Your task to perform on an android device: Open calendar and show me the third week of next month Image 0: 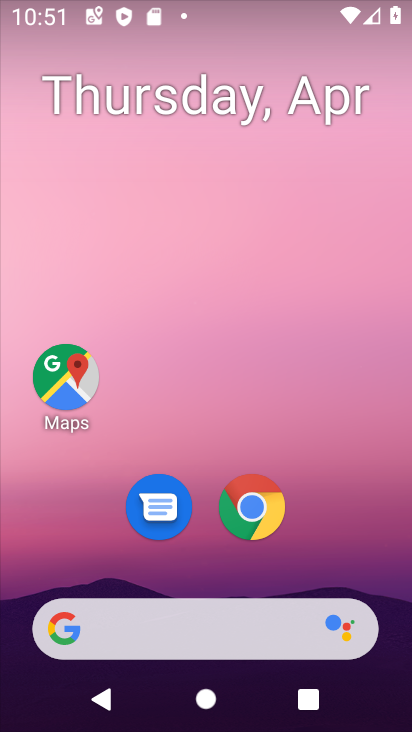
Step 0: drag from (128, 584) to (288, 8)
Your task to perform on an android device: Open calendar and show me the third week of next month Image 1: 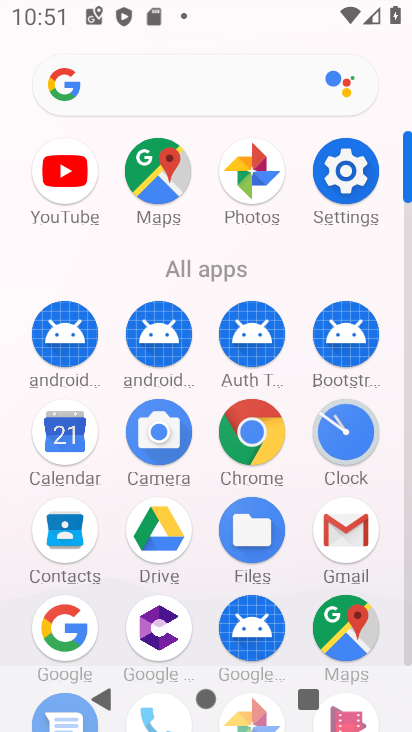
Step 1: click (71, 467)
Your task to perform on an android device: Open calendar and show me the third week of next month Image 2: 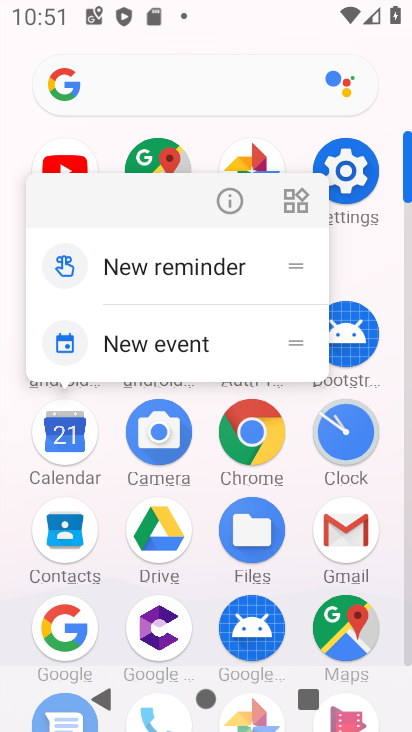
Step 2: click (75, 433)
Your task to perform on an android device: Open calendar and show me the third week of next month Image 3: 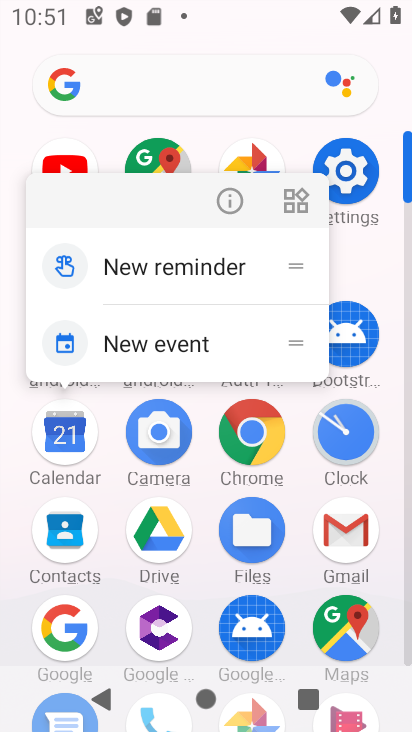
Step 3: click (71, 420)
Your task to perform on an android device: Open calendar and show me the third week of next month Image 4: 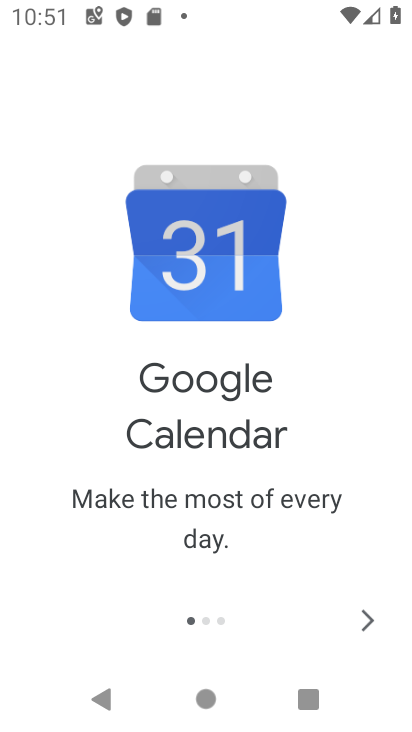
Step 4: click (369, 620)
Your task to perform on an android device: Open calendar and show me the third week of next month Image 5: 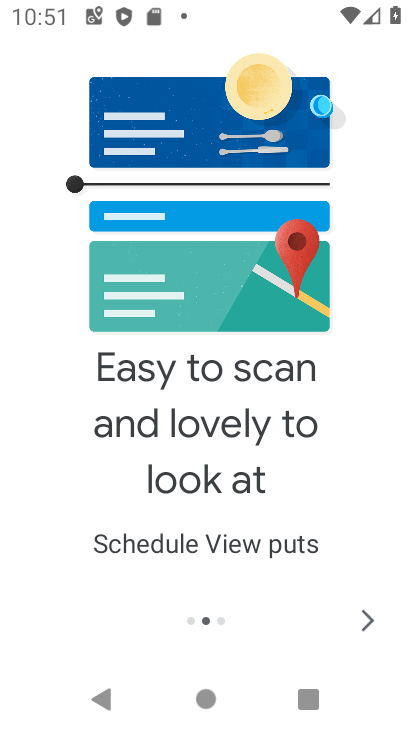
Step 5: click (361, 624)
Your task to perform on an android device: Open calendar and show me the third week of next month Image 6: 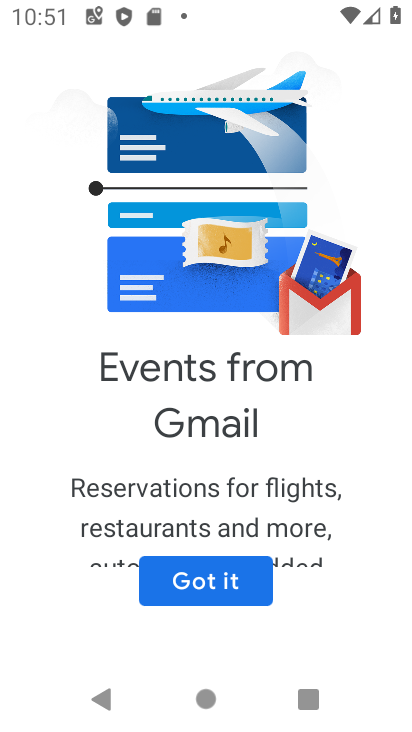
Step 6: click (202, 585)
Your task to perform on an android device: Open calendar and show me the third week of next month Image 7: 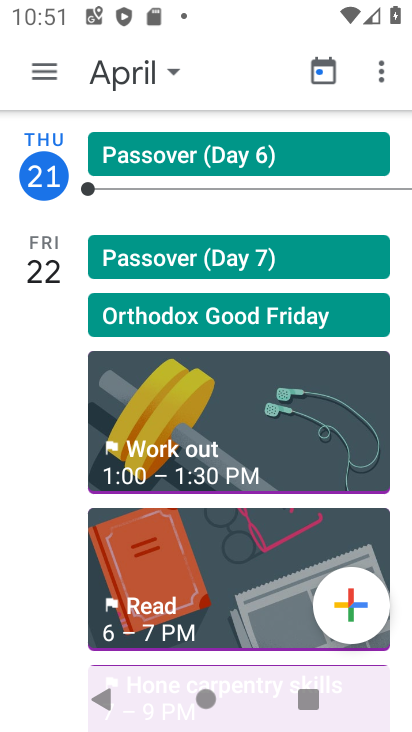
Step 7: click (124, 85)
Your task to perform on an android device: Open calendar and show me the third week of next month Image 8: 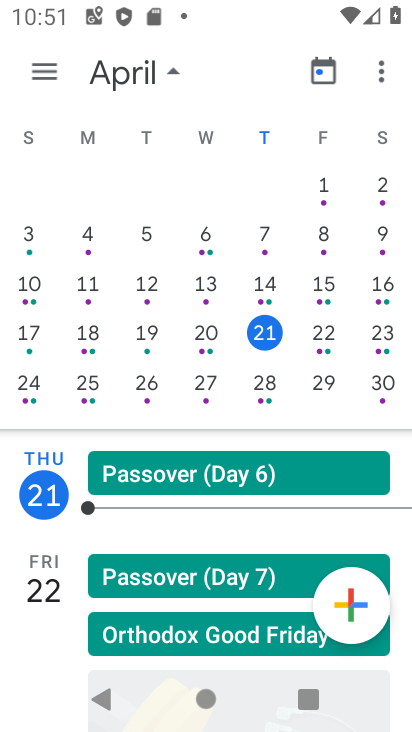
Step 8: drag from (401, 362) to (7, 362)
Your task to perform on an android device: Open calendar and show me the third week of next month Image 9: 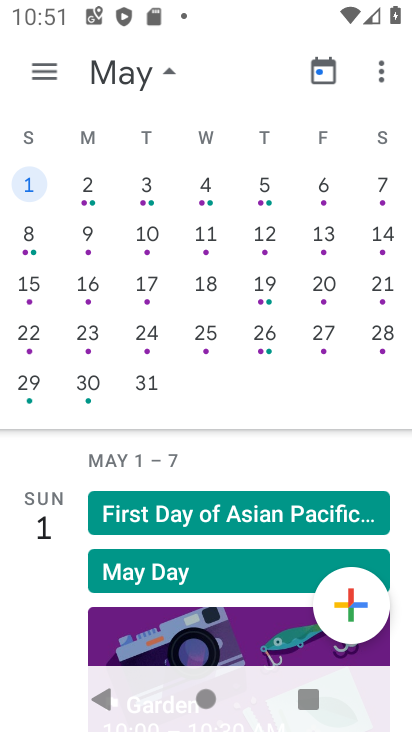
Step 9: click (40, 290)
Your task to perform on an android device: Open calendar and show me the third week of next month Image 10: 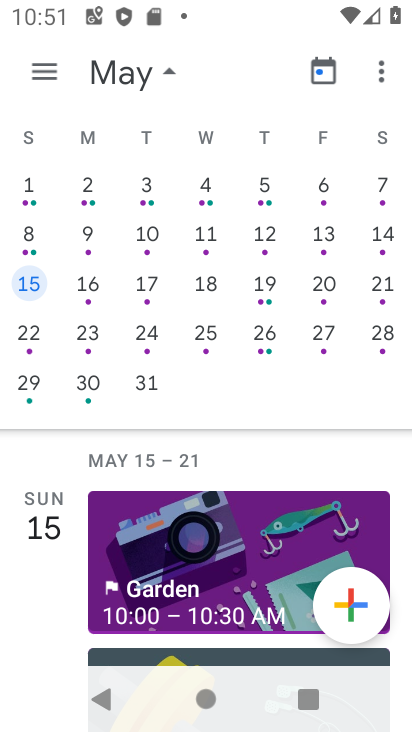
Step 10: click (60, 68)
Your task to perform on an android device: Open calendar and show me the third week of next month Image 11: 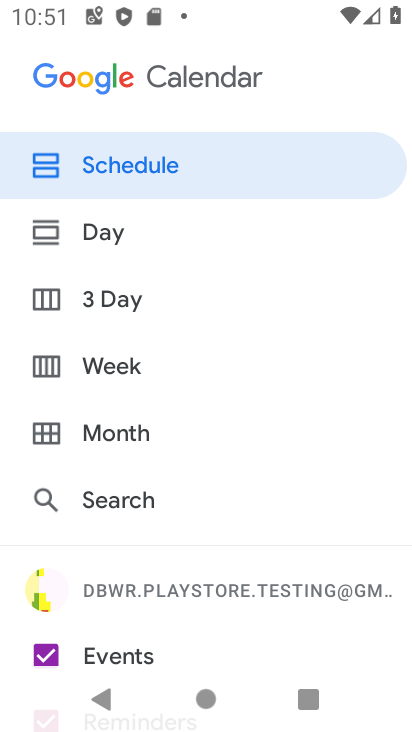
Step 11: click (155, 370)
Your task to perform on an android device: Open calendar and show me the third week of next month Image 12: 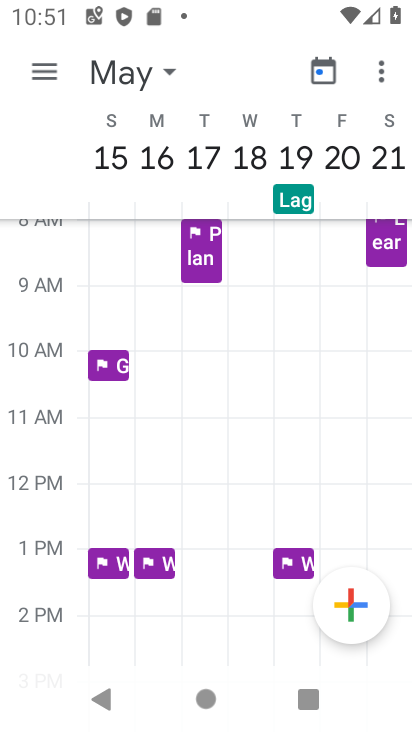
Step 12: task complete